Your task to perform on an android device: move a message to another label in the gmail app Image 0: 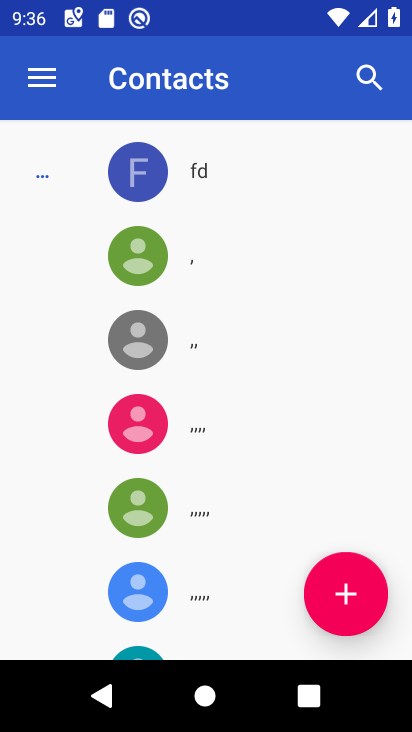
Step 0: press home button
Your task to perform on an android device: move a message to another label in the gmail app Image 1: 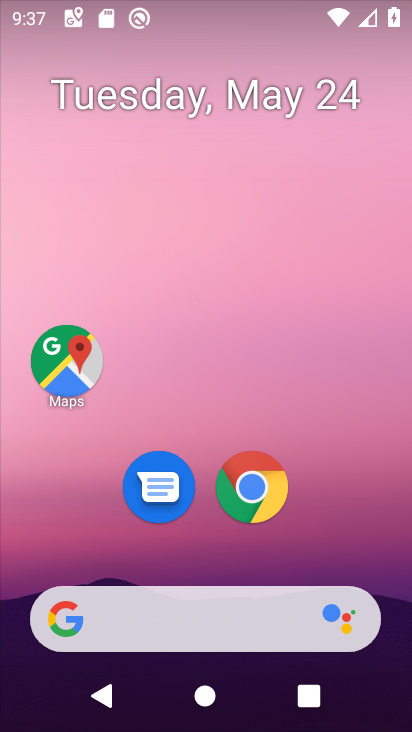
Step 1: drag from (164, 610) to (317, 195)
Your task to perform on an android device: move a message to another label in the gmail app Image 2: 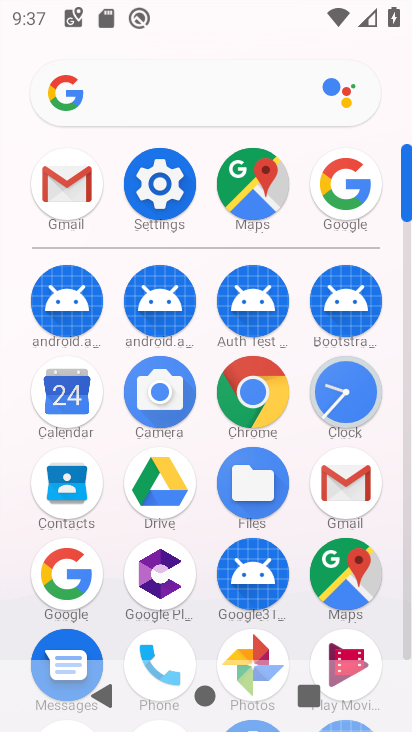
Step 2: click (80, 193)
Your task to perform on an android device: move a message to another label in the gmail app Image 3: 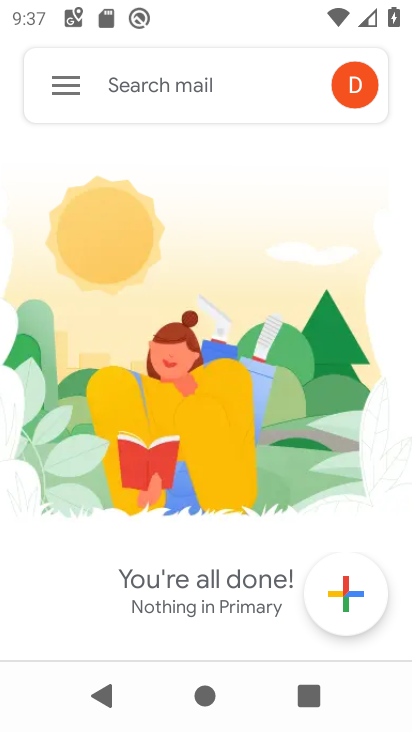
Step 3: task complete